Your task to perform on an android device: turn off priority inbox in the gmail app Image 0: 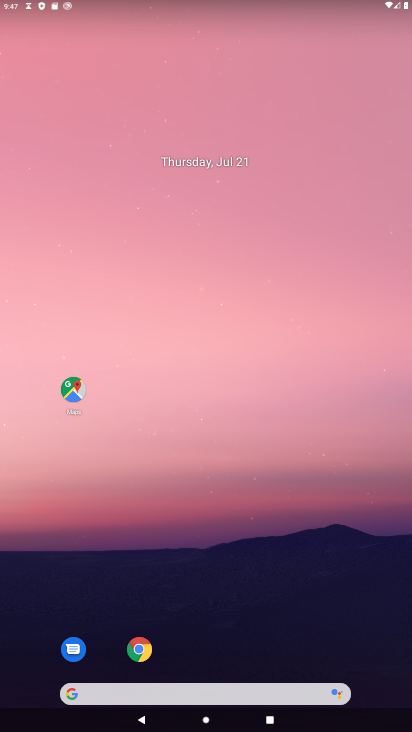
Step 0: click (337, 565)
Your task to perform on an android device: turn off priority inbox in the gmail app Image 1: 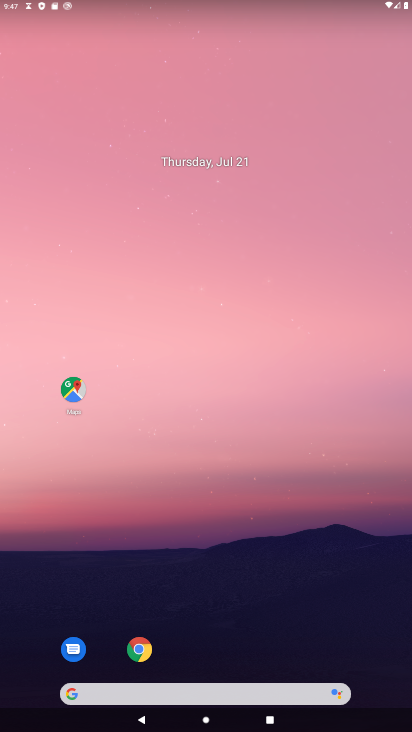
Step 1: drag from (283, 589) to (275, 219)
Your task to perform on an android device: turn off priority inbox in the gmail app Image 2: 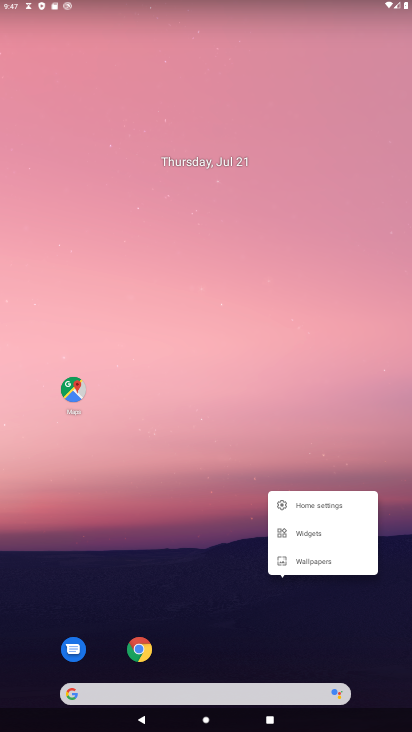
Step 2: click (206, 436)
Your task to perform on an android device: turn off priority inbox in the gmail app Image 3: 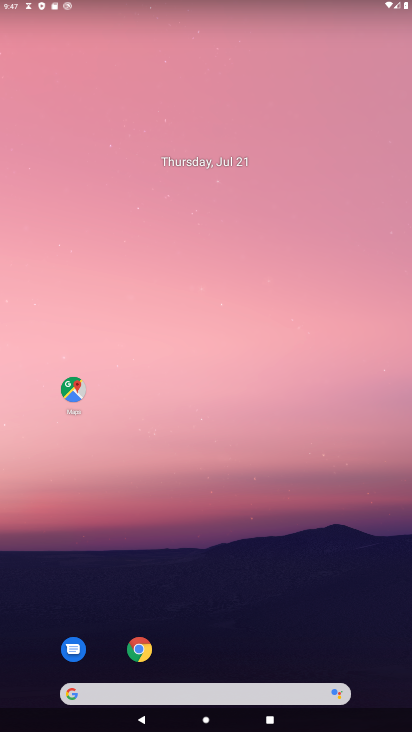
Step 3: drag from (284, 605) to (321, 132)
Your task to perform on an android device: turn off priority inbox in the gmail app Image 4: 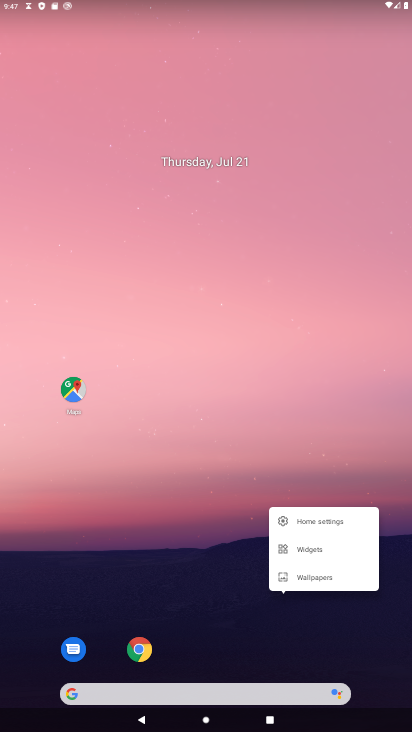
Step 4: click (238, 614)
Your task to perform on an android device: turn off priority inbox in the gmail app Image 5: 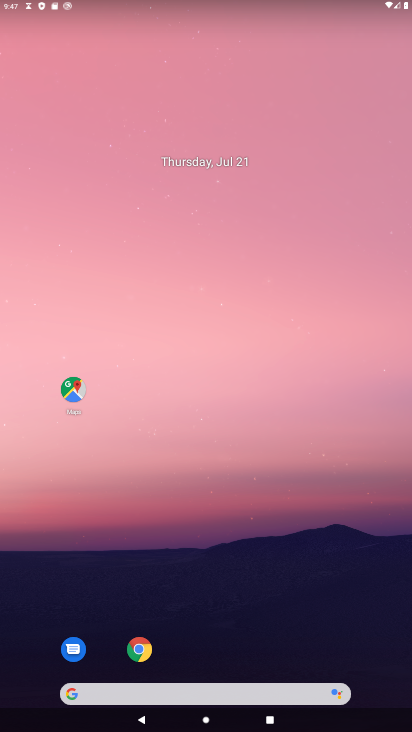
Step 5: drag from (238, 614) to (262, 69)
Your task to perform on an android device: turn off priority inbox in the gmail app Image 6: 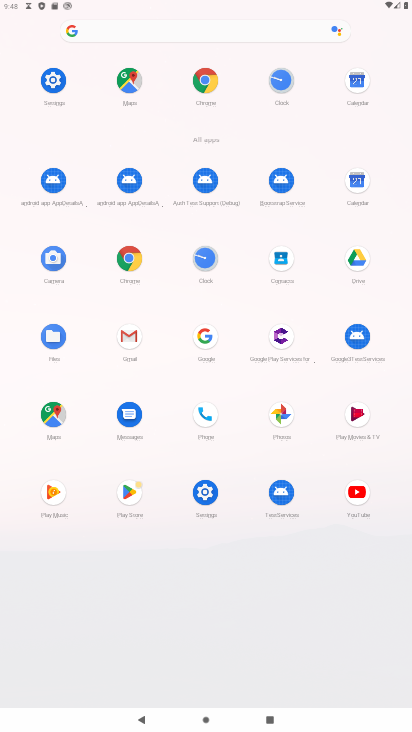
Step 6: click (138, 329)
Your task to perform on an android device: turn off priority inbox in the gmail app Image 7: 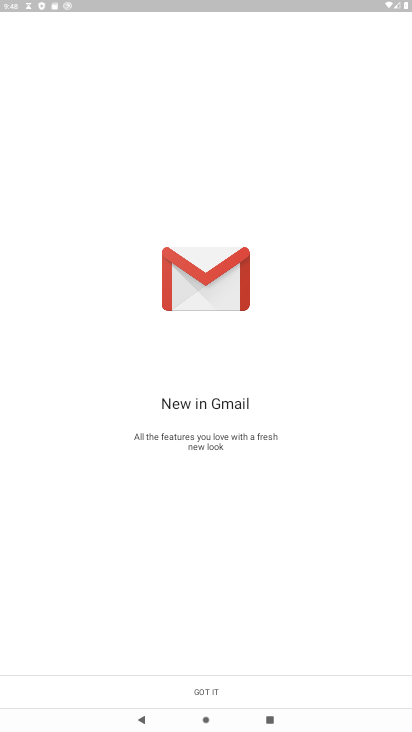
Step 7: click (199, 679)
Your task to perform on an android device: turn off priority inbox in the gmail app Image 8: 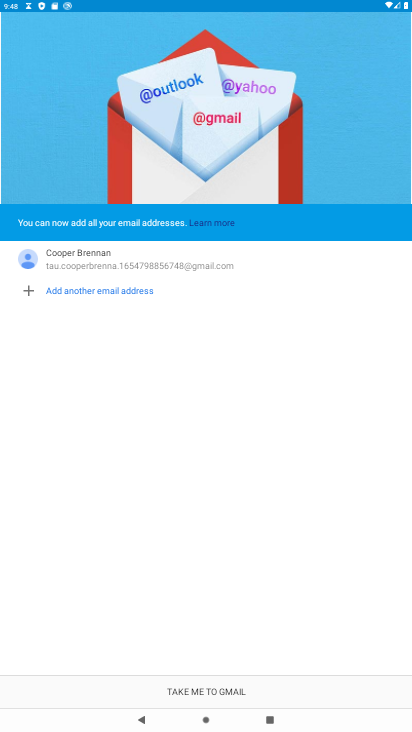
Step 8: click (199, 679)
Your task to perform on an android device: turn off priority inbox in the gmail app Image 9: 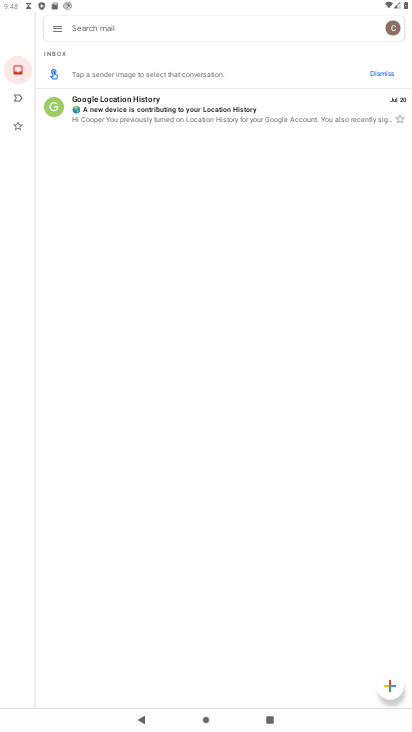
Step 9: click (55, 18)
Your task to perform on an android device: turn off priority inbox in the gmail app Image 10: 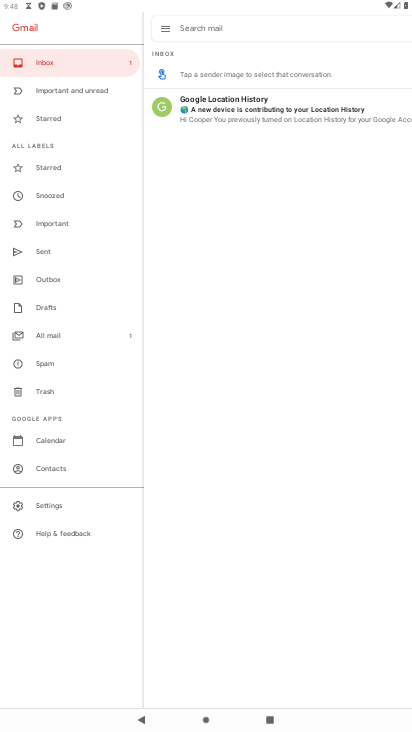
Step 10: click (69, 499)
Your task to perform on an android device: turn off priority inbox in the gmail app Image 11: 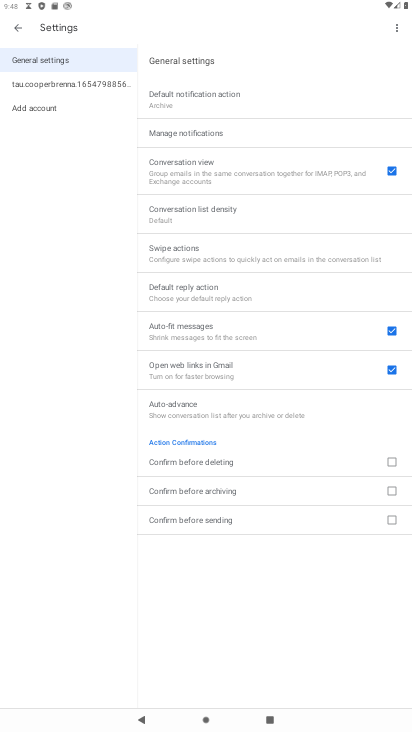
Step 11: click (60, 86)
Your task to perform on an android device: turn off priority inbox in the gmail app Image 12: 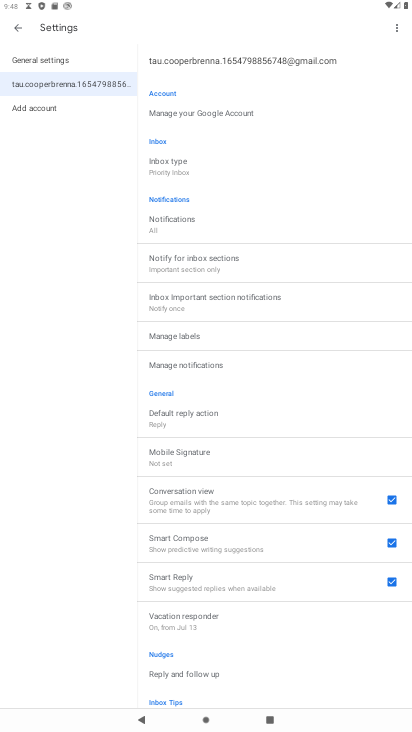
Step 12: click (203, 166)
Your task to perform on an android device: turn off priority inbox in the gmail app Image 13: 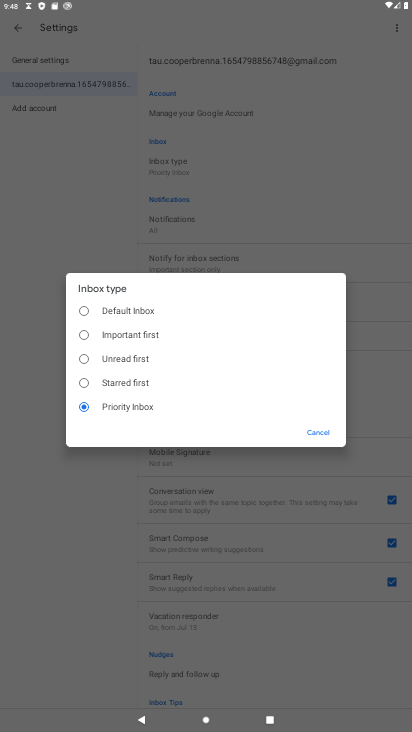
Step 13: click (139, 312)
Your task to perform on an android device: turn off priority inbox in the gmail app Image 14: 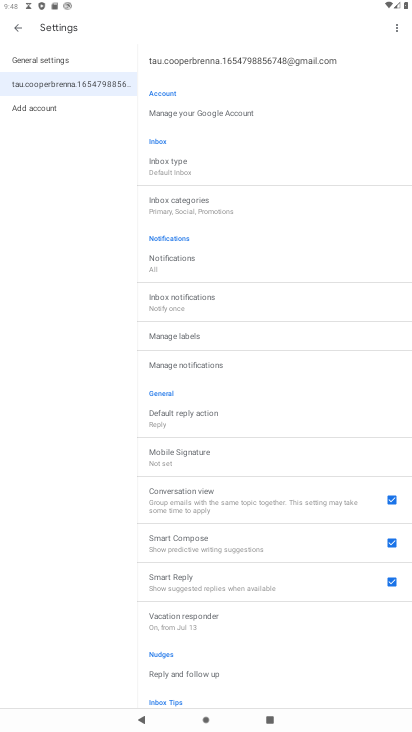
Step 14: task complete